Your task to perform on an android device: Open Youtube and go to "Your channel" Image 0: 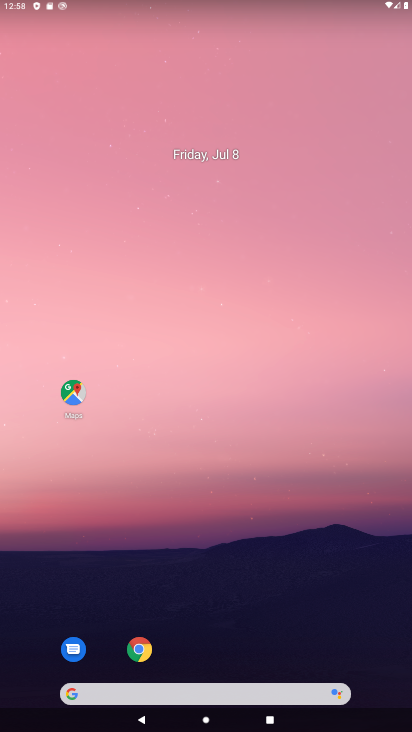
Step 0: drag from (312, 638) to (289, 153)
Your task to perform on an android device: Open Youtube and go to "Your channel" Image 1: 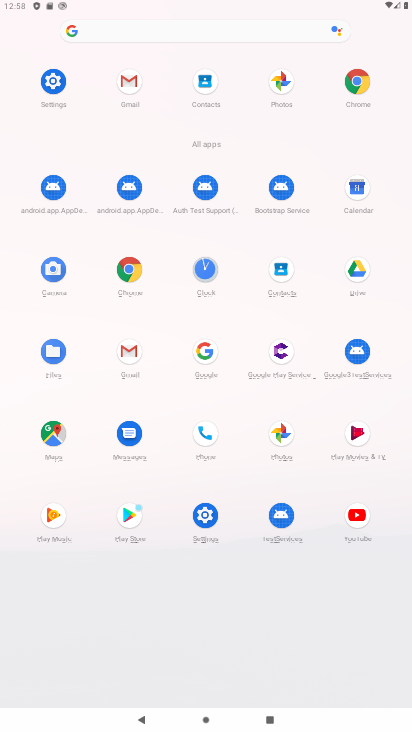
Step 1: click (356, 514)
Your task to perform on an android device: Open Youtube and go to "Your channel" Image 2: 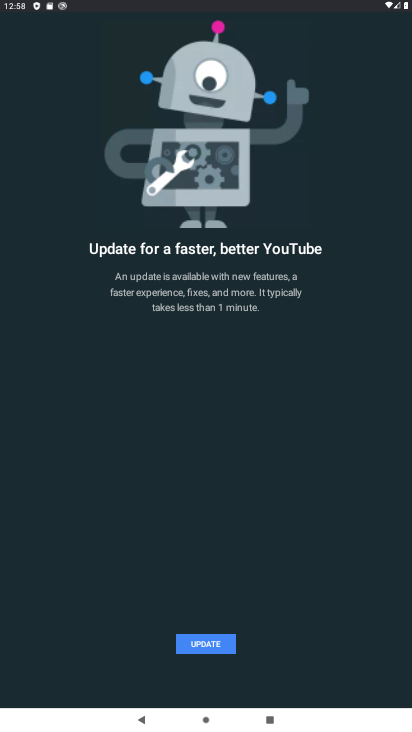
Step 2: task complete